Your task to perform on an android device: find snoozed emails in the gmail app Image 0: 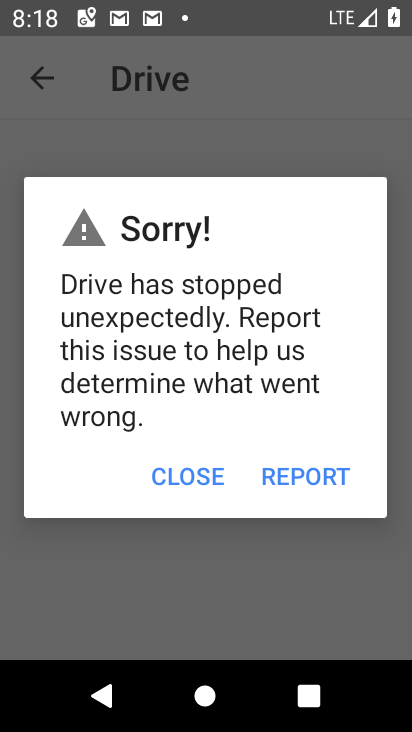
Step 0: press home button
Your task to perform on an android device: find snoozed emails in the gmail app Image 1: 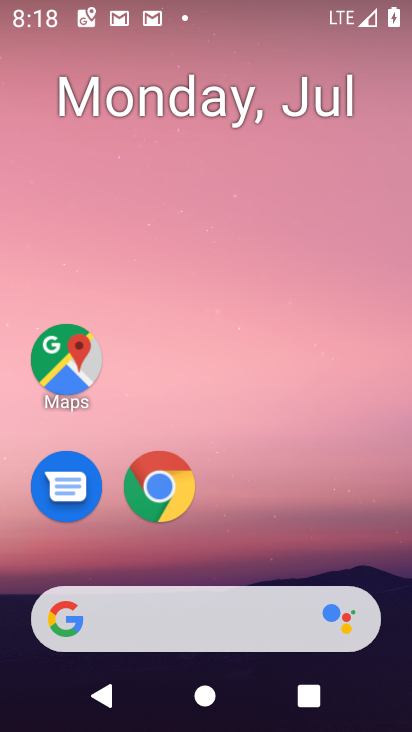
Step 1: drag from (345, 507) to (349, 162)
Your task to perform on an android device: find snoozed emails in the gmail app Image 2: 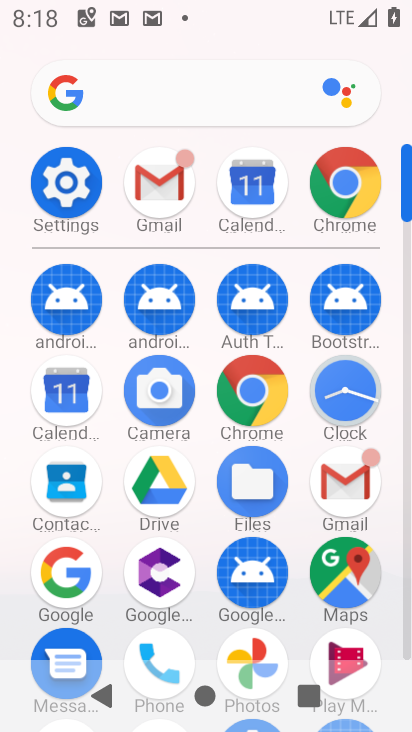
Step 2: click (353, 475)
Your task to perform on an android device: find snoozed emails in the gmail app Image 3: 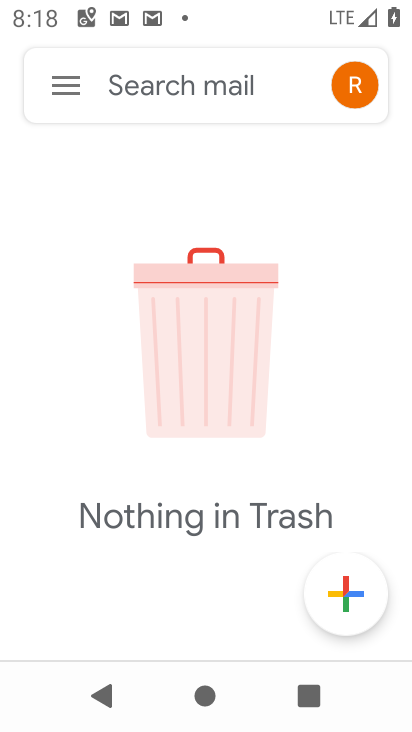
Step 3: click (66, 86)
Your task to perform on an android device: find snoozed emails in the gmail app Image 4: 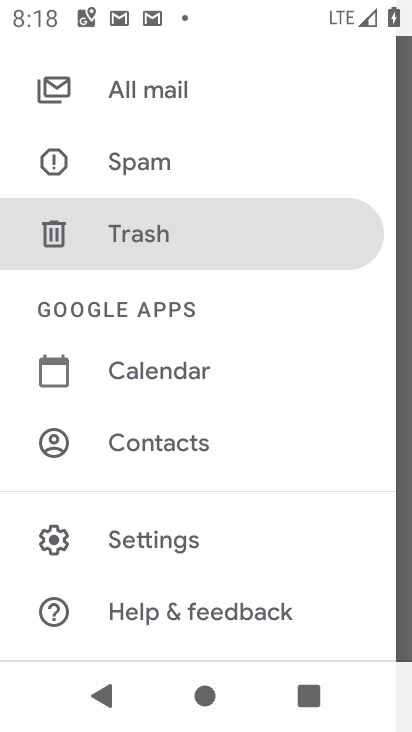
Step 4: drag from (289, 169) to (298, 299)
Your task to perform on an android device: find snoozed emails in the gmail app Image 5: 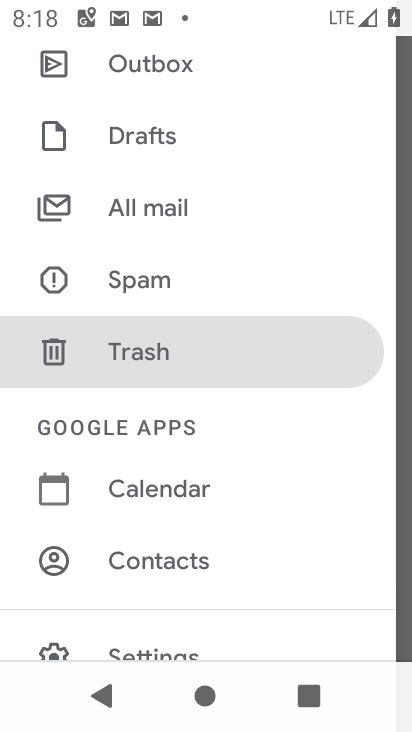
Step 5: drag from (309, 155) to (307, 297)
Your task to perform on an android device: find snoozed emails in the gmail app Image 6: 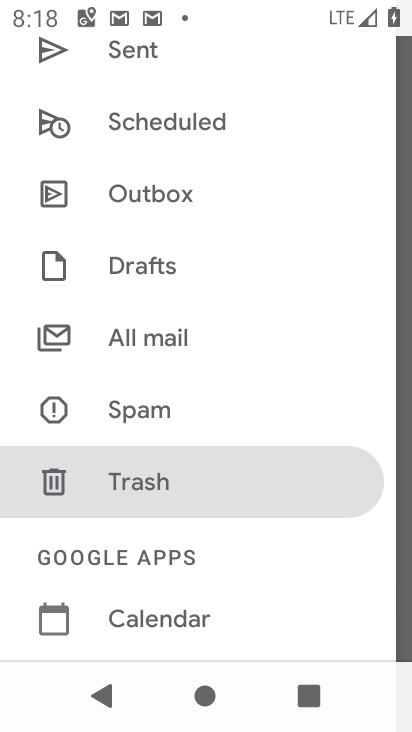
Step 6: drag from (305, 154) to (306, 294)
Your task to perform on an android device: find snoozed emails in the gmail app Image 7: 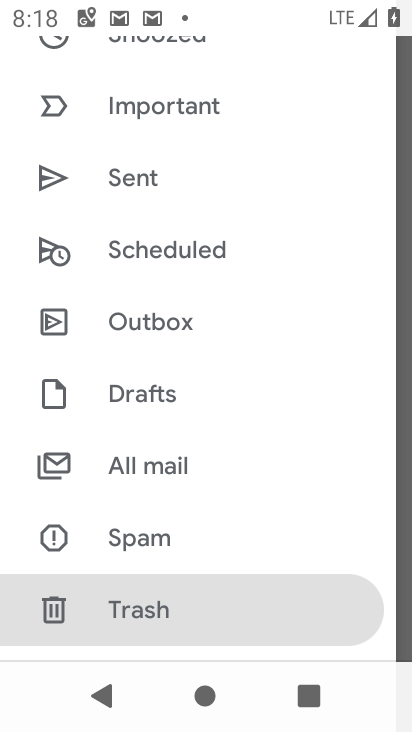
Step 7: drag from (316, 159) to (345, 381)
Your task to perform on an android device: find snoozed emails in the gmail app Image 8: 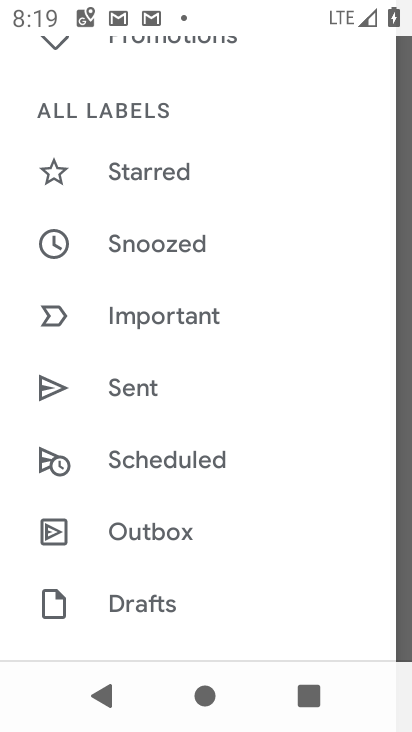
Step 8: drag from (309, 156) to (310, 333)
Your task to perform on an android device: find snoozed emails in the gmail app Image 9: 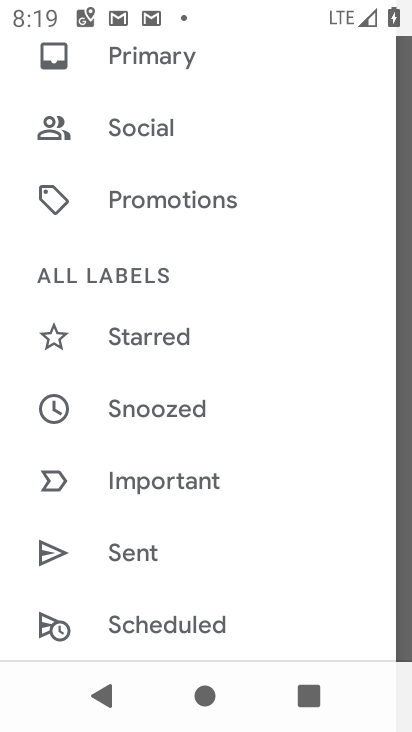
Step 9: click (228, 415)
Your task to perform on an android device: find snoozed emails in the gmail app Image 10: 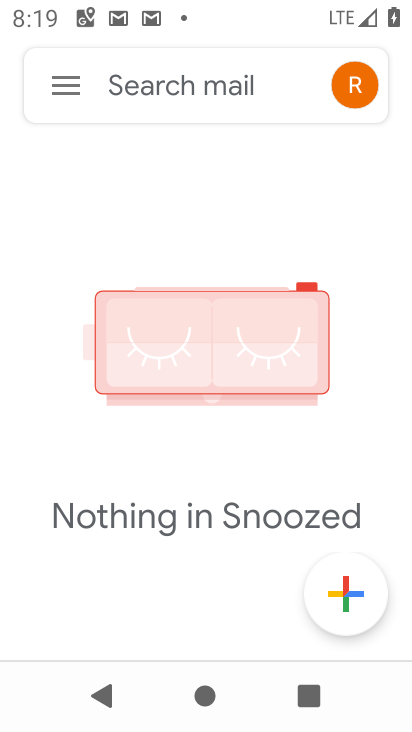
Step 10: task complete